Your task to perform on an android device: Go to CNN.com Image 0: 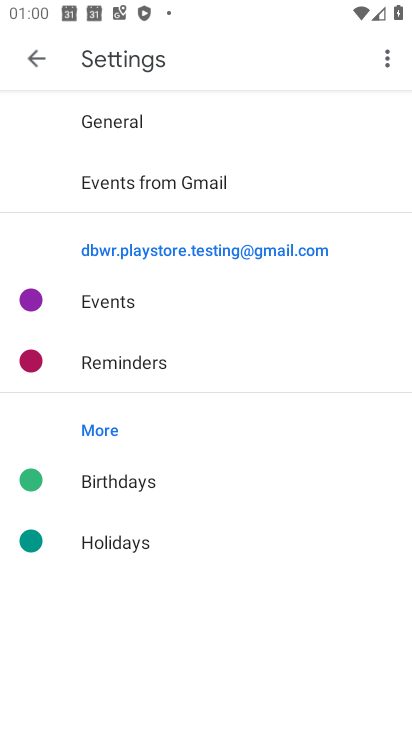
Step 0: press home button
Your task to perform on an android device: Go to CNN.com Image 1: 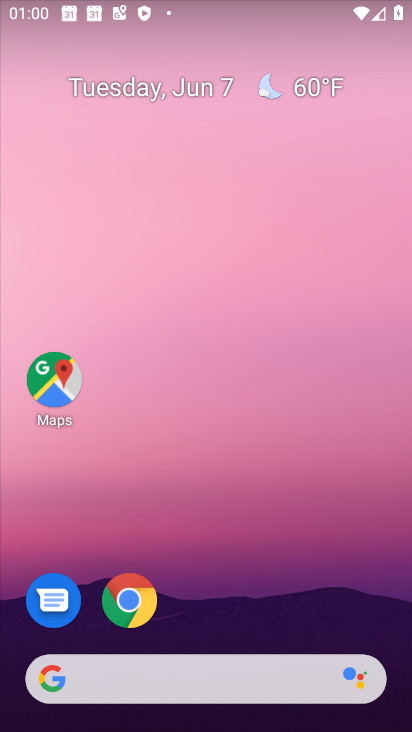
Step 1: click (125, 604)
Your task to perform on an android device: Go to CNN.com Image 2: 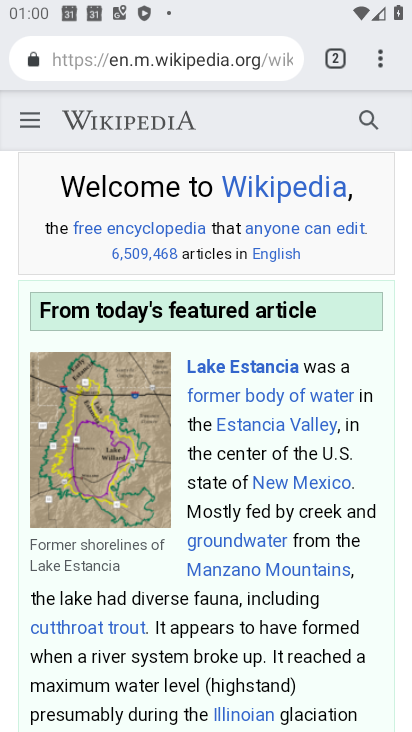
Step 2: click (382, 64)
Your task to perform on an android device: Go to CNN.com Image 3: 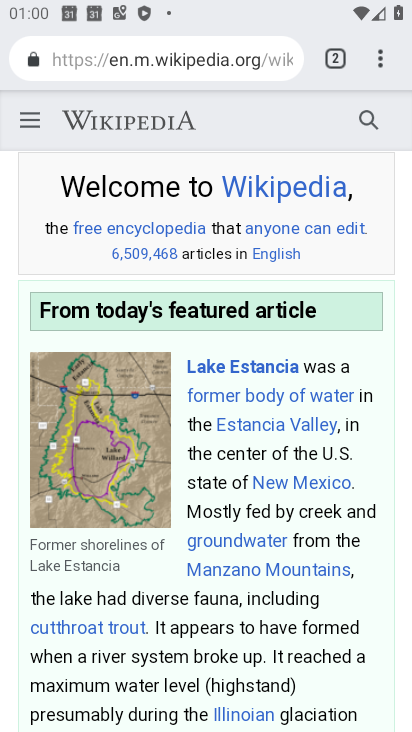
Step 3: click (378, 64)
Your task to perform on an android device: Go to CNN.com Image 4: 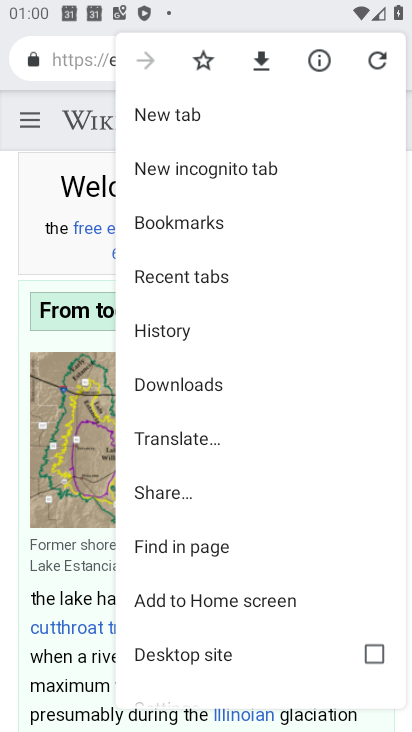
Step 4: click (160, 115)
Your task to perform on an android device: Go to CNN.com Image 5: 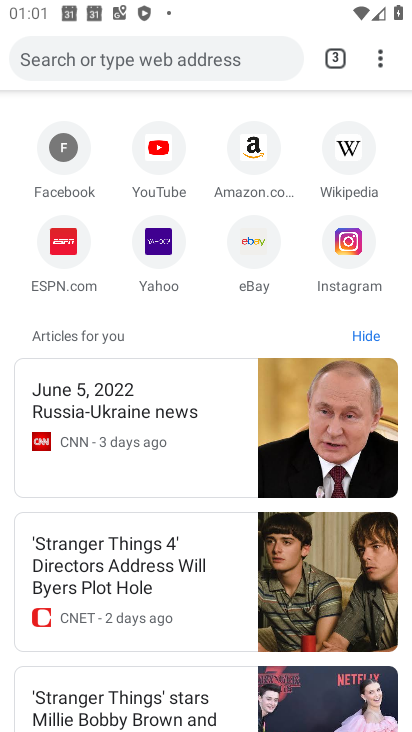
Step 5: click (180, 61)
Your task to perform on an android device: Go to CNN.com Image 6: 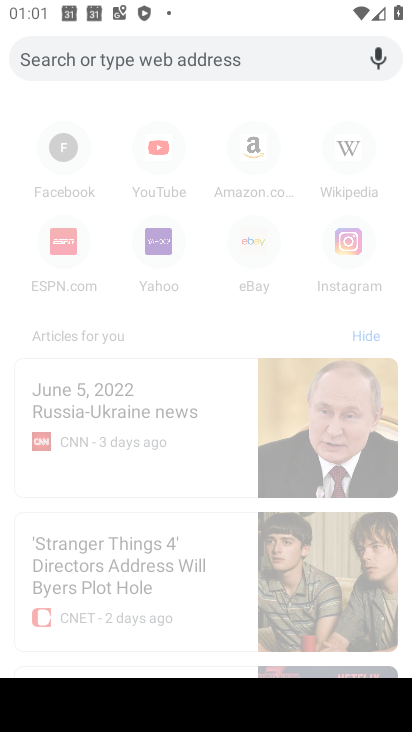
Step 6: type "CNN.com"
Your task to perform on an android device: Go to CNN.com Image 7: 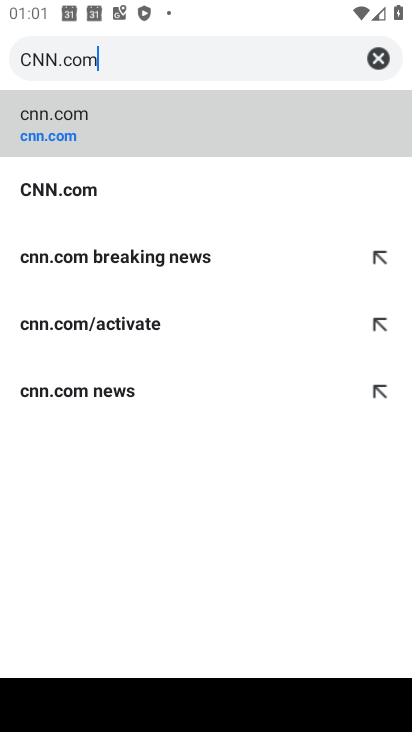
Step 7: click (56, 123)
Your task to perform on an android device: Go to CNN.com Image 8: 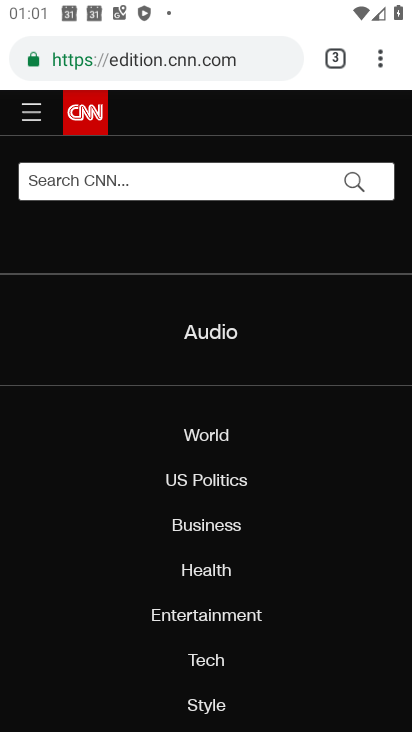
Step 8: task complete